Your task to perform on an android device: Open the calendar app, open the side menu, and click the "Day" option Image 0: 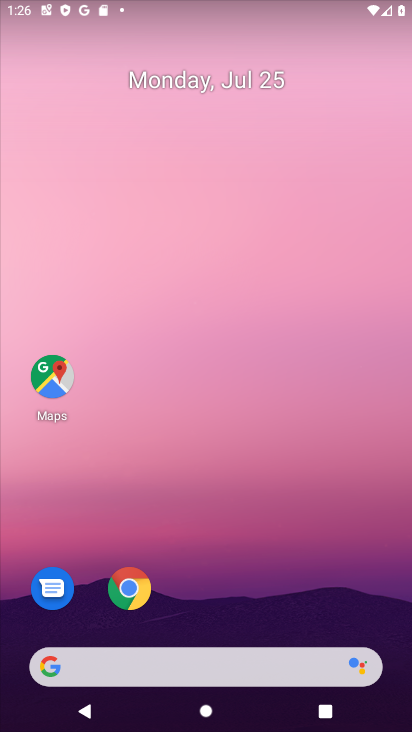
Step 0: click (200, 224)
Your task to perform on an android device: Open the calendar app, open the side menu, and click the "Day" option Image 1: 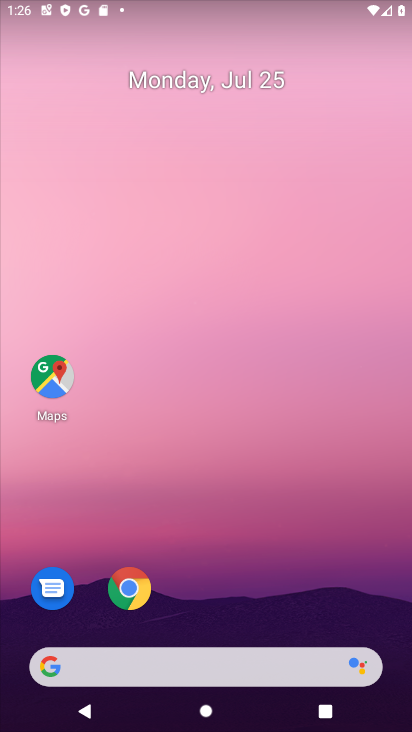
Step 1: drag from (207, 586) to (207, 125)
Your task to perform on an android device: Open the calendar app, open the side menu, and click the "Day" option Image 2: 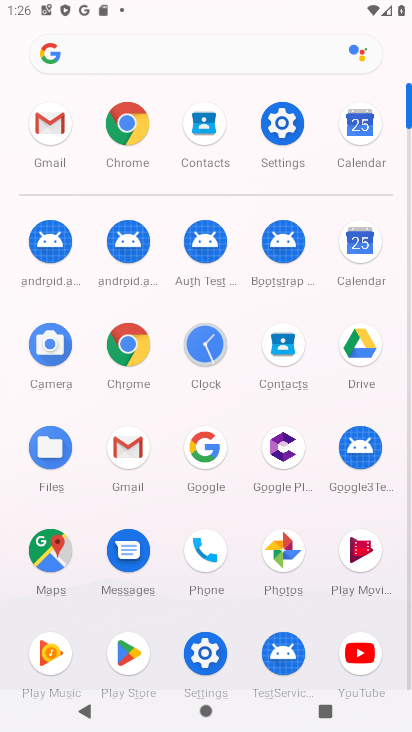
Step 2: click (361, 254)
Your task to perform on an android device: Open the calendar app, open the side menu, and click the "Day" option Image 3: 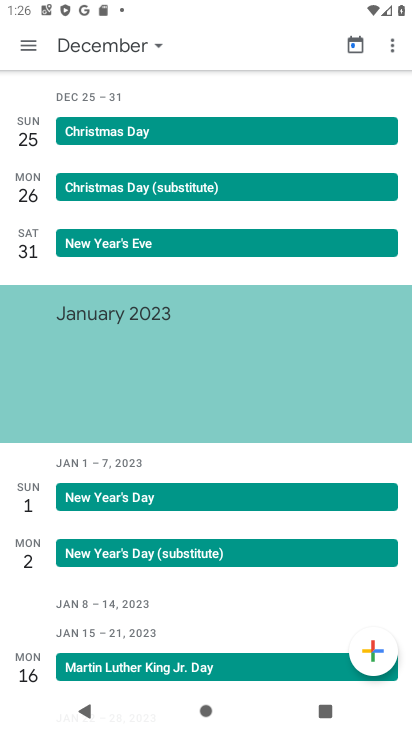
Step 3: click (31, 40)
Your task to perform on an android device: Open the calendar app, open the side menu, and click the "Day" option Image 4: 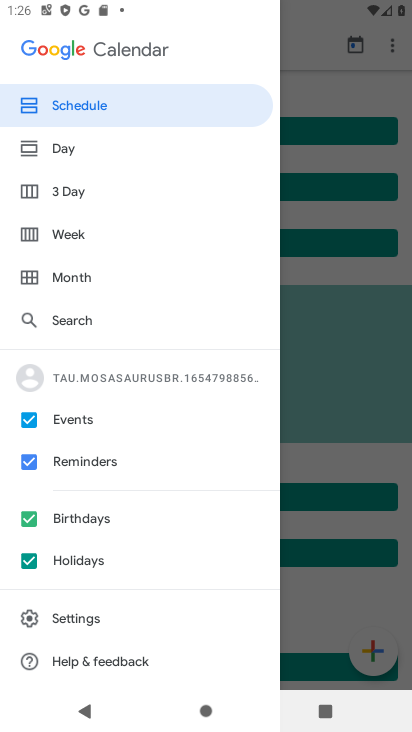
Step 4: click (76, 149)
Your task to perform on an android device: Open the calendar app, open the side menu, and click the "Day" option Image 5: 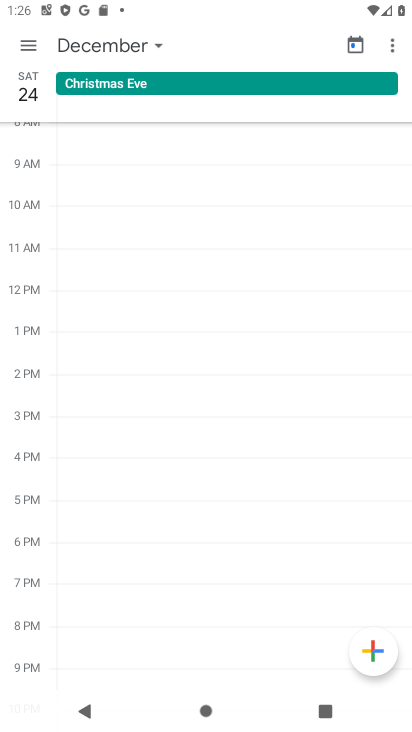
Step 5: task complete